Your task to perform on an android device: Go to ESPN.com Image 0: 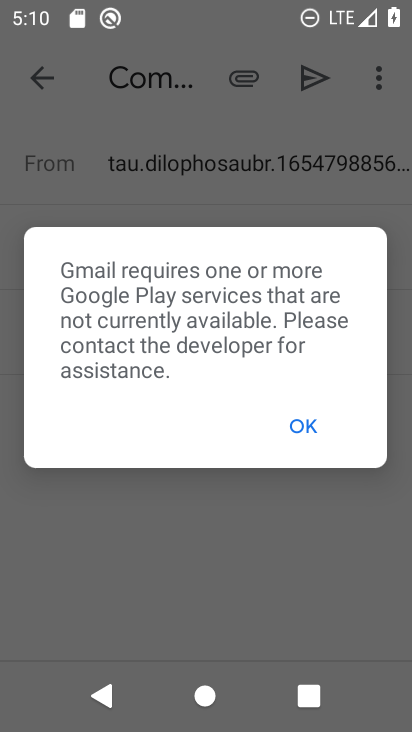
Step 0: press back button
Your task to perform on an android device: Go to ESPN.com Image 1: 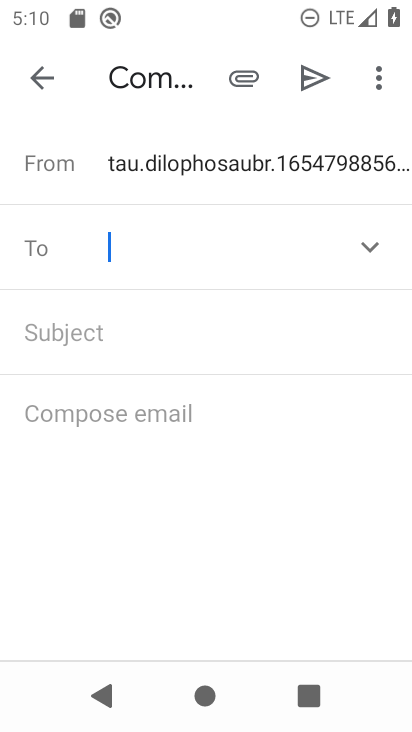
Step 1: press back button
Your task to perform on an android device: Go to ESPN.com Image 2: 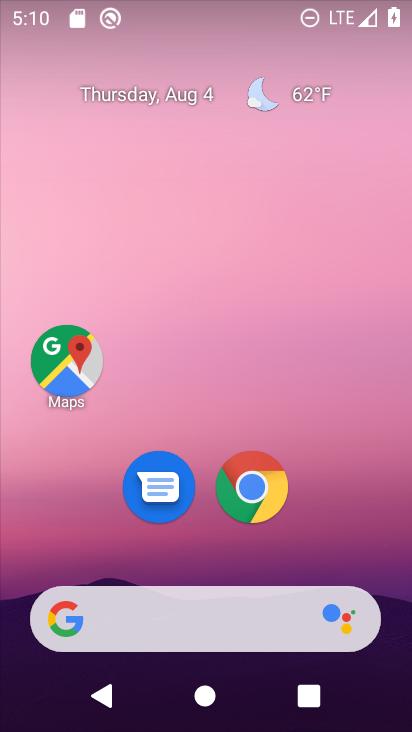
Step 2: click (248, 483)
Your task to perform on an android device: Go to ESPN.com Image 3: 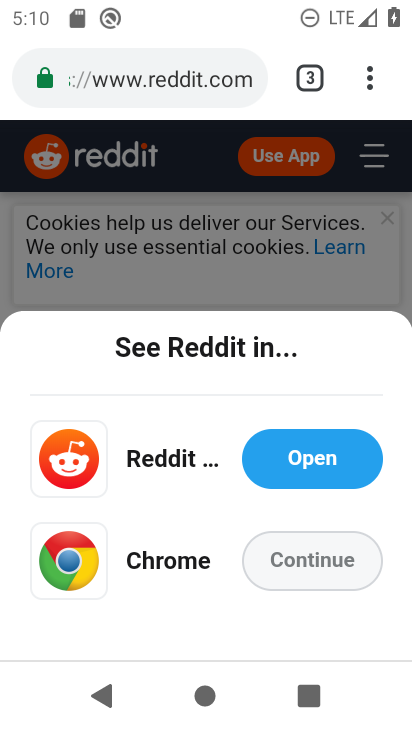
Step 3: click (304, 80)
Your task to perform on an android device: Go to ESPN.com Image 4: 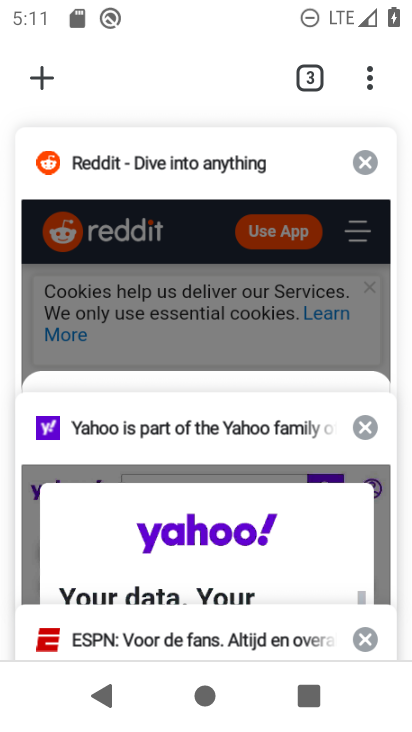
Step 4: click (43, 73)
Your task to perform on an android device: Go to ESPN.com Image 5: 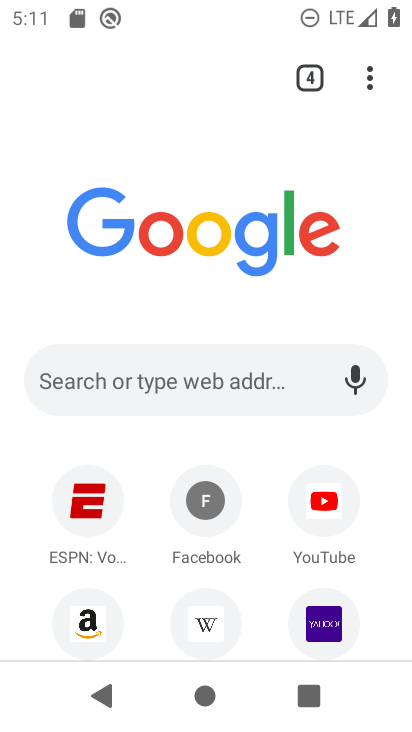
Step 5: click (84, 534)
Your task to perform on an android device: Go to ESPN.com Image 6: 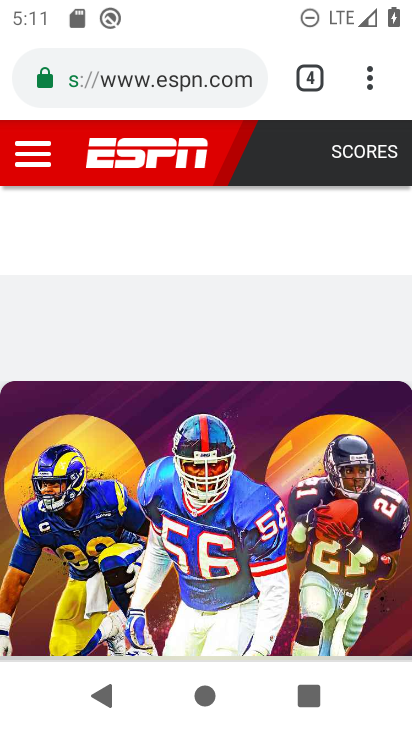
Step 6: task complete